Your task to perform on an android device: find photos in the google photos app Image 0: 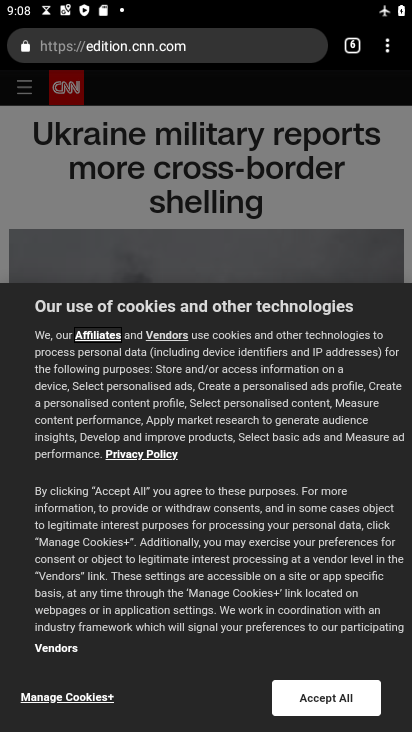
Step 0: press home button
Your task to perform on an android device: find photos in the google photos app Image 1: 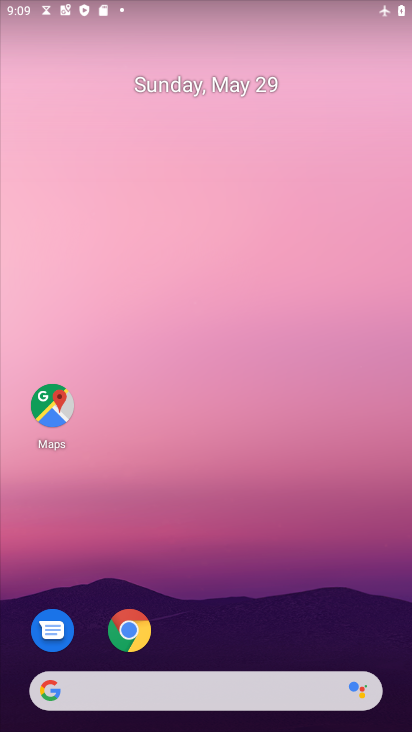
Step 1: drag from (213, 620) to (243, 163)
Your task to perform on an android device: find photos in the google photos app Image 2: 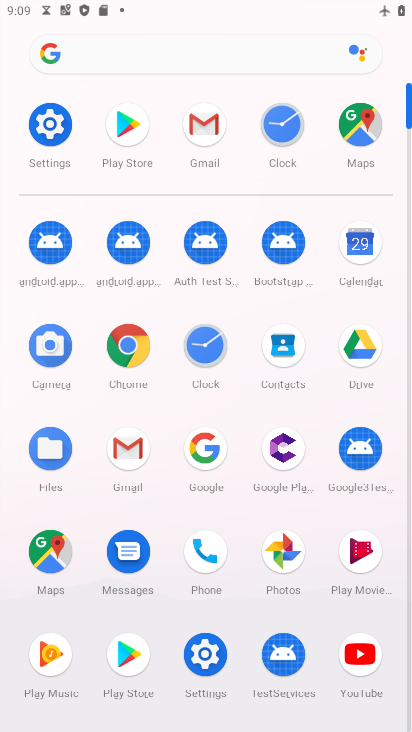
Step 2: click (285, 542)
Your task to perform on an android device: find photos in the google photos app Image 3: 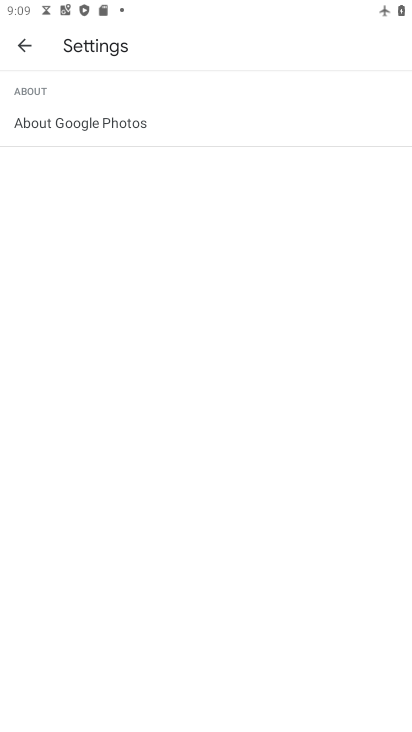
Step 3: click (28, 44)
Your task to perform on an android device: find photos in the google photos app Image 4: 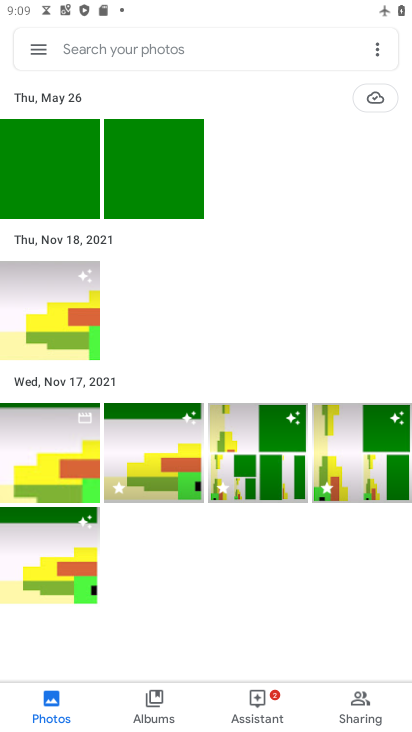
Step 4: task complete